Your task to perform on an android device: Go to Wikipedia Image 0: 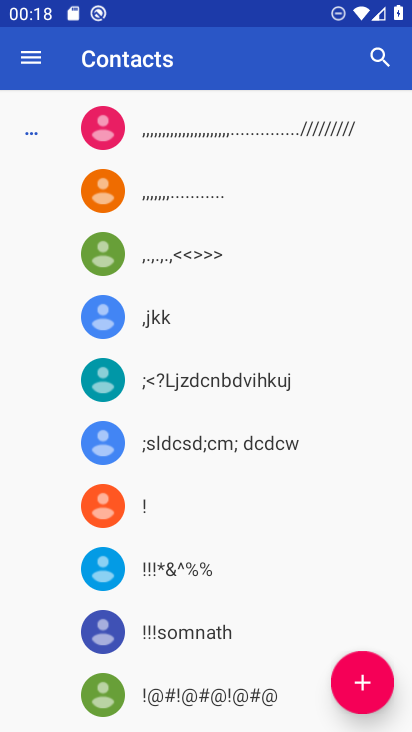
Step 0: press home button
Your task to perform on an android device: Go to Wikipedia Image 1: 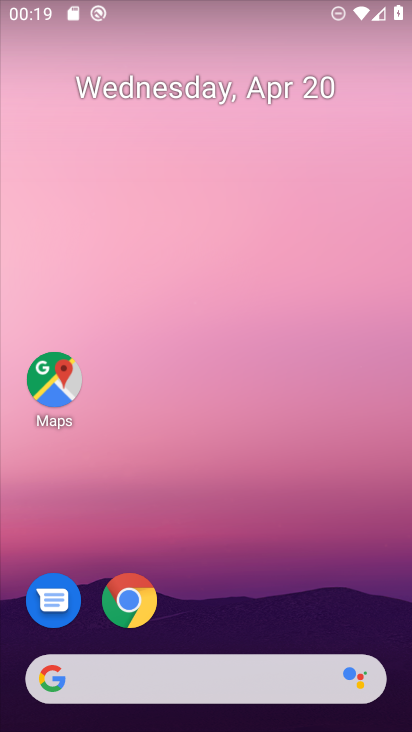
Step 1: drag from (376, 583) to (369, 195)
Your task to perform on an android device: Go to Wikipedia Image 2: 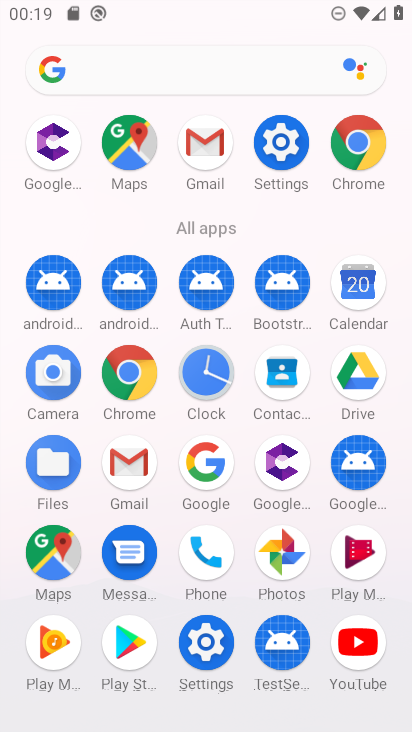
Step 2: click (130, 396)
Your task to perform on an android device: Go to Wikipedia Image 3: 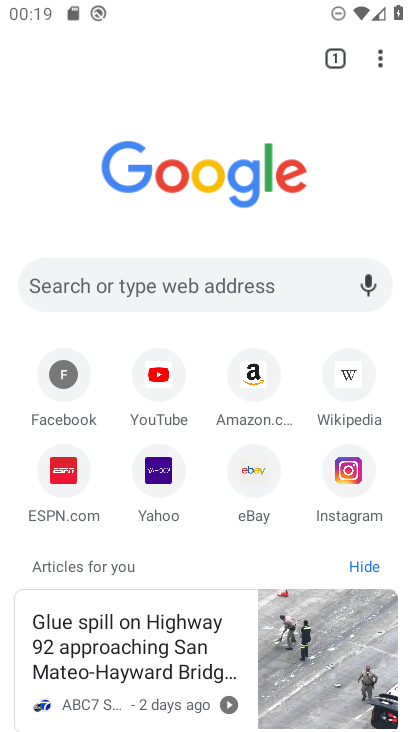
Step 3: click (111, 283)
Your task to perform on an android device: Go to Wikipedia Image 4: 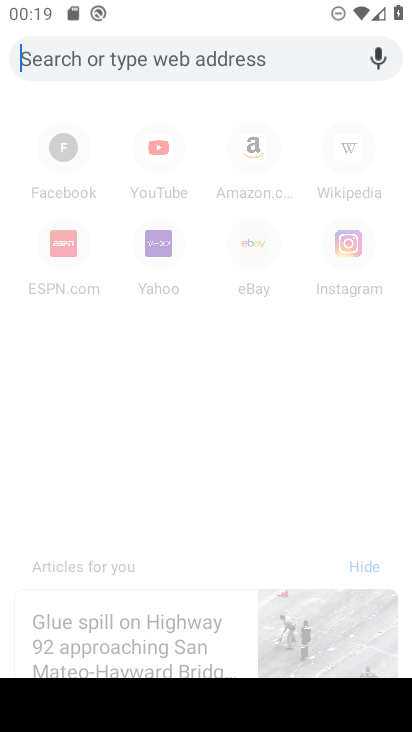
Step 4: type "wikipedia"
Your task to perform on an android device: Go to Wikipedia Image 5: 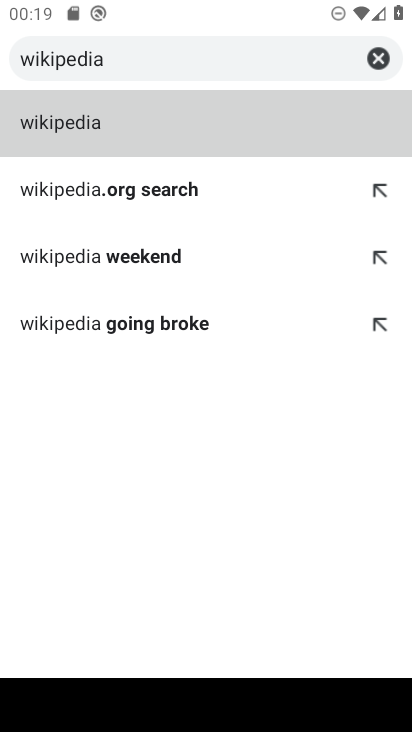
Step 5: click (108, 141)
Your task to perform on an android device: Go to Wikipedia Image 6: 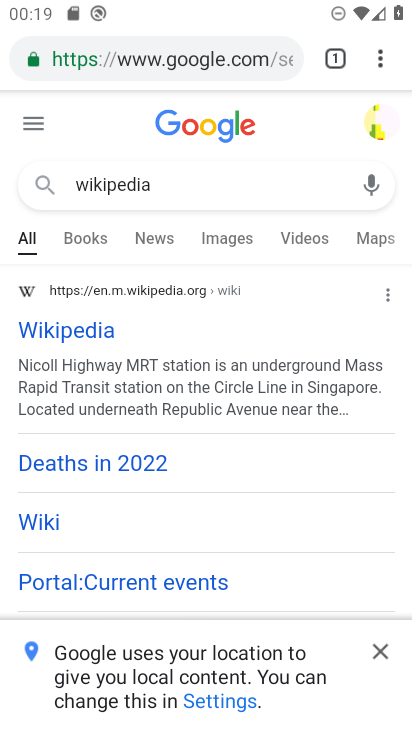
Step 6: click (86, 344)
Your task to perform on an android device: Go to Wikipedia Image 7: 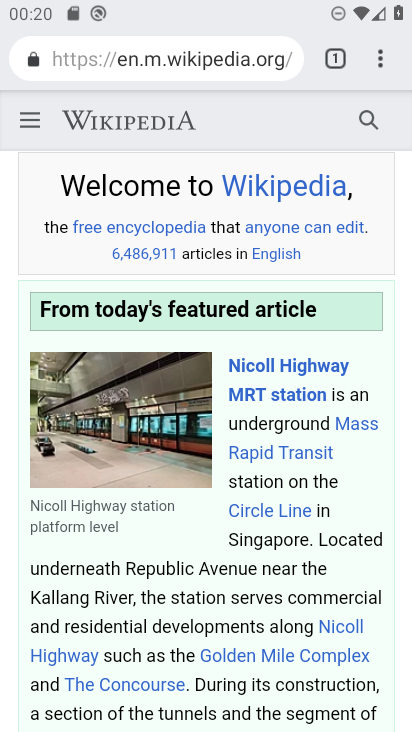
Step 7: task complete